Your task to perform on an android device: Check the weather Image 0: 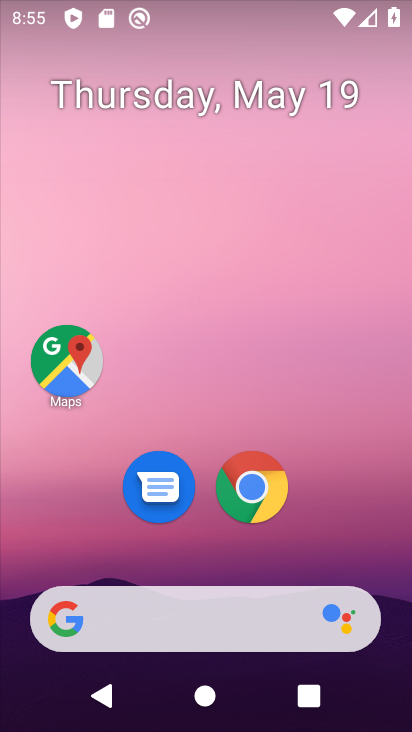
Step 0: click (162, 640)
Your task to perform on an android device: Check the weather Image 1: 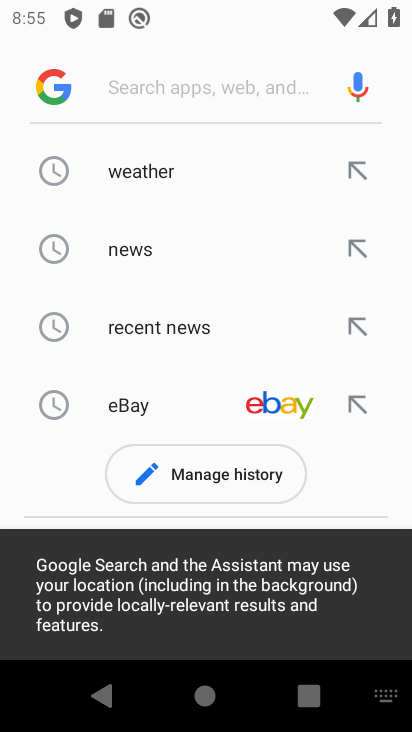
Step 1: click (148, 153)
Your task to perform on an android device: Check the weather Image 2: 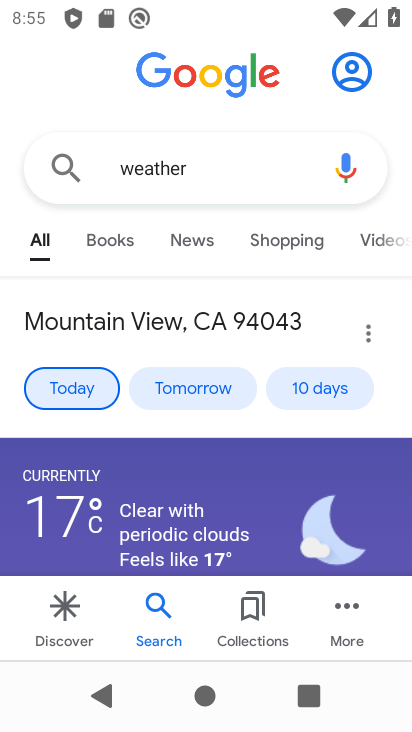
Step 2: task complete